Your task to perform on an android device: find photos in the google photos app Image 0: 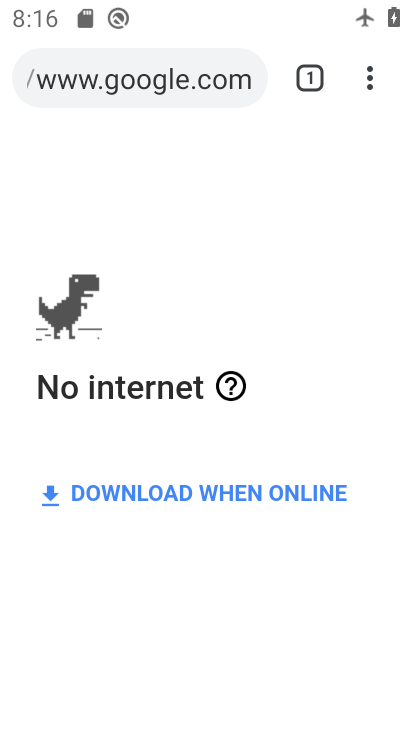
Step 0: press home button
Your task to perform on an android device: find photos in the google photos app Image 1: 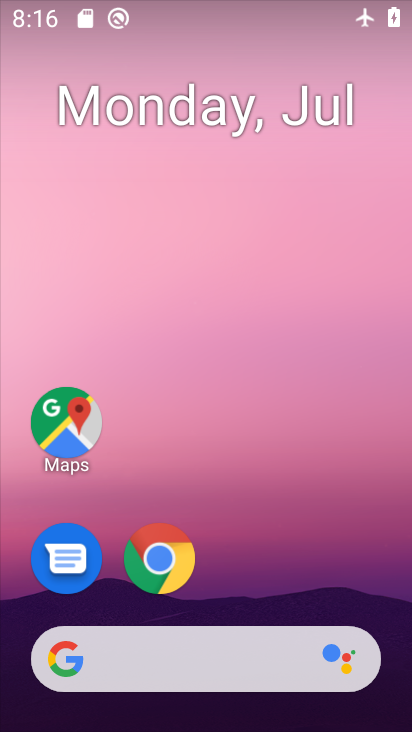
Step 1: drag from (330, 567) to (356, 85)
Your task to perform on an android device: find photos in the google photos app Image 2: 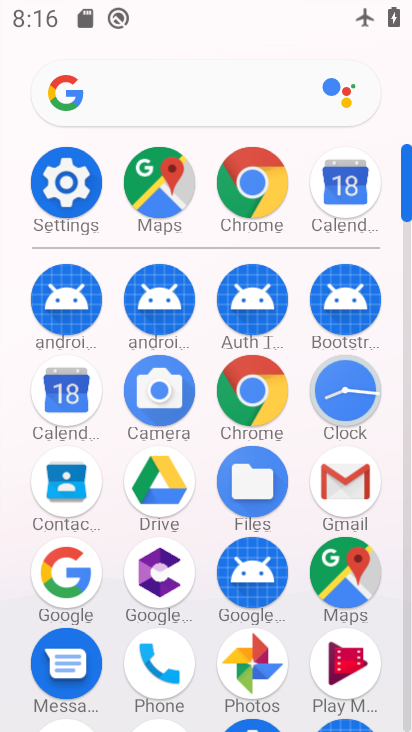
Step 2: click (255, 655)
Your task to perform on an android device: find photos in the google photos app Image 3: 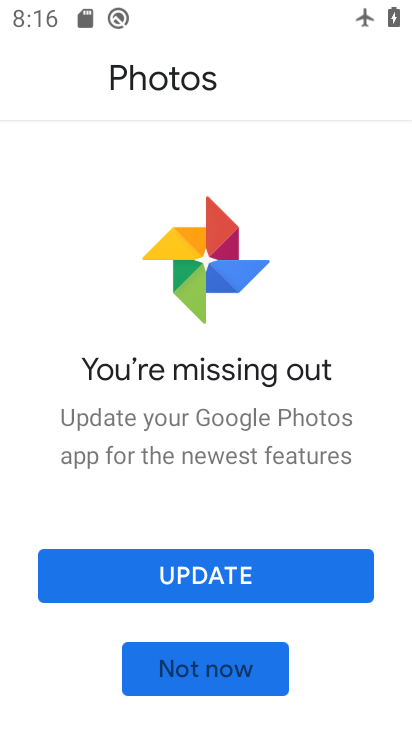
Step 3: click (255, 574)
Your task to perform on an android device: find photos in the google photos app Image 4: 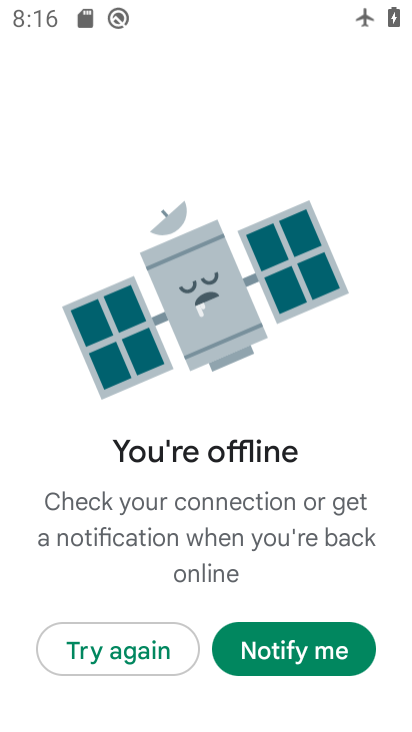
Step 4: task complete